Your task to perform on an android device: turn on the 12-hour format for clock Image 0: 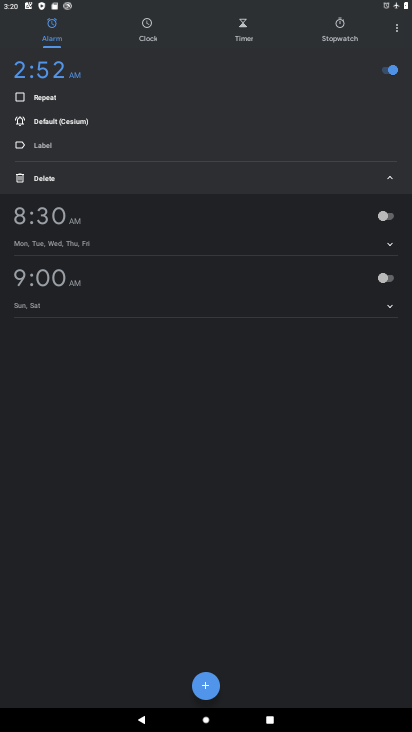
Step 0: press home button
Your task to perform on an android device: turn on the 12-hour format for clock Image 1: 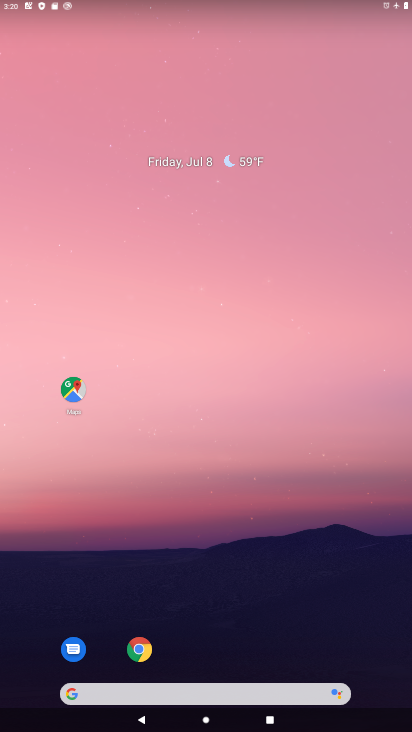
Step 1: drag from (248, 608) to (255, 85)
Your task to perform on an android device: turn on the 12-hour format for clock Image 2: 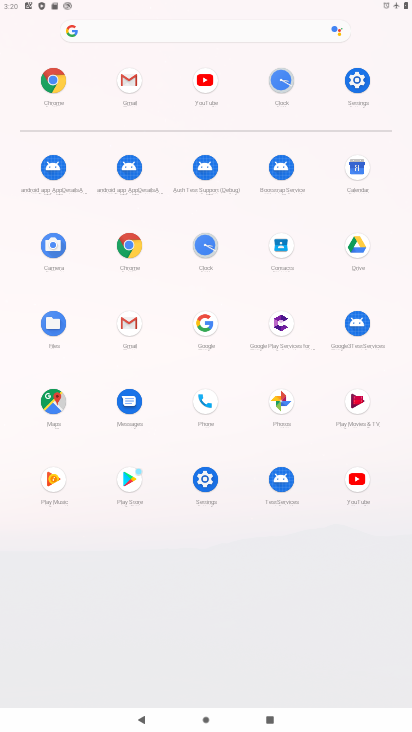
Step 2: click (204, 245)
Your task to perform on an android device: turn on the 12-hour format for clock Image 3: 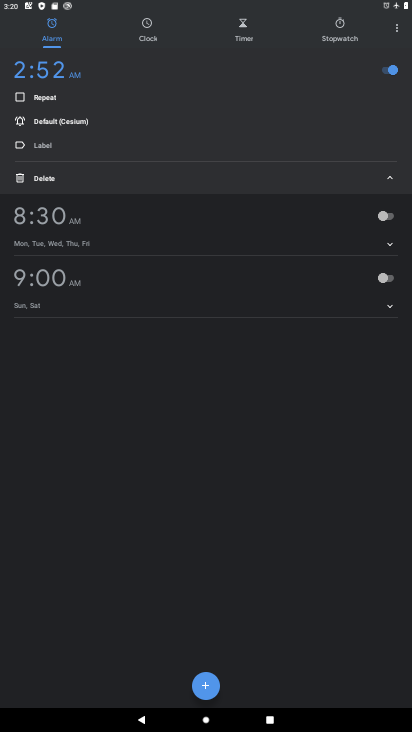
Step 3: click (399, 30)
Your task to perform on an android device: turn on the 12-hour format for clock Image 4: 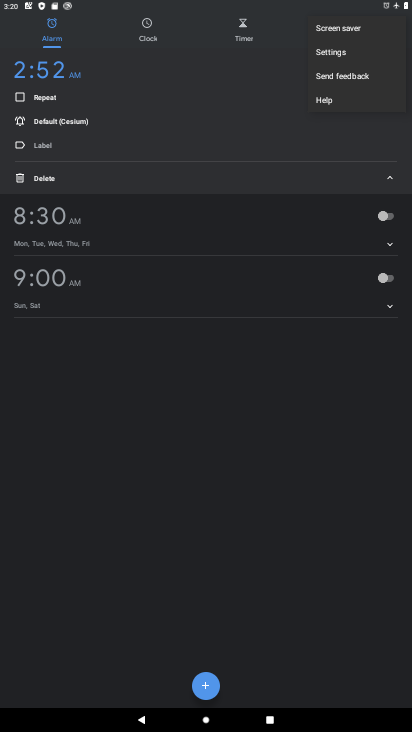
Step 4: click (335, 50)
Your task to perform on an android device: turn on the 12-hour format for clock Image 5: 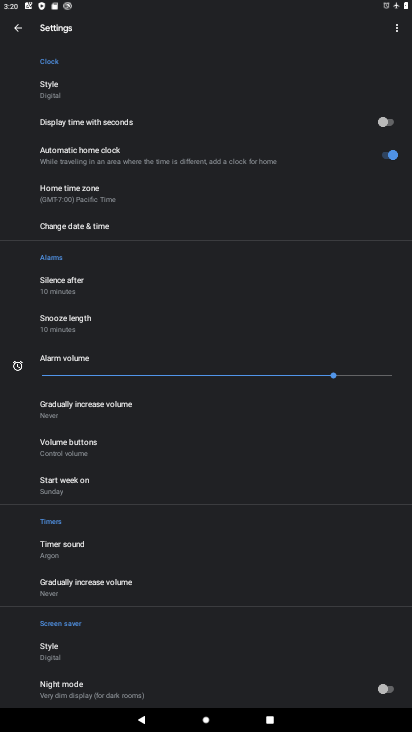
Step 5: click (102, 227)
Your task to perform on an android device: turn on the 12-hour format for clock Image 6: 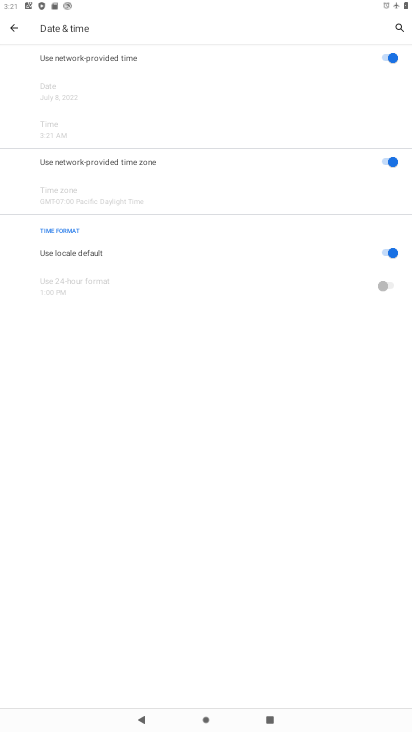
Step 6: task complete